Your task to perform on an android device: change the clock display to show seconds Image 0: 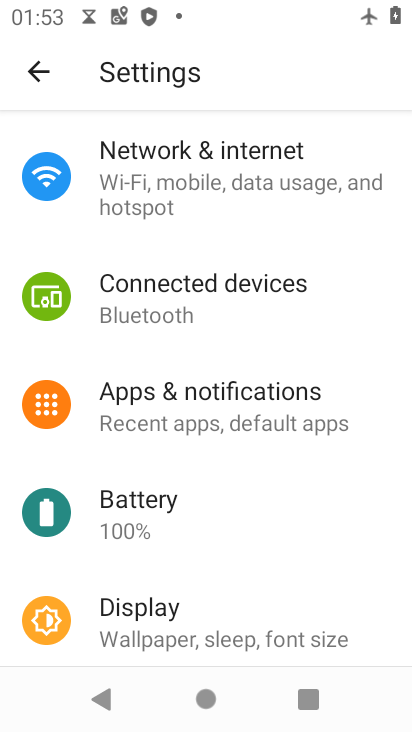
Step 0: click (197, 606)
Your task to perform on an android device: change the clock display to show seconds Image 1: 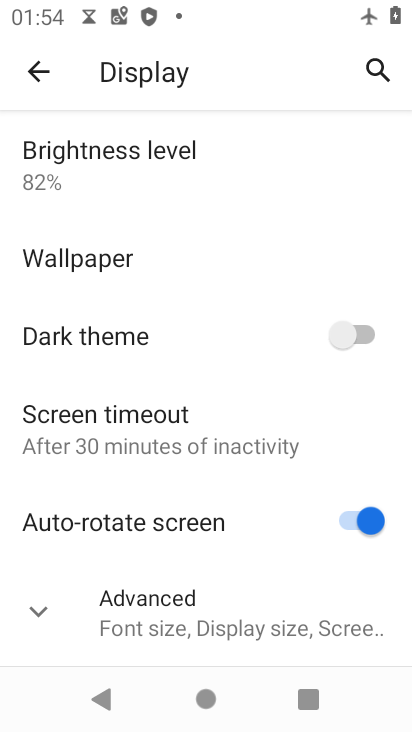
Step 1: task complete